Your task to perform on an android device: check the backup settings in the google photos Image 0: 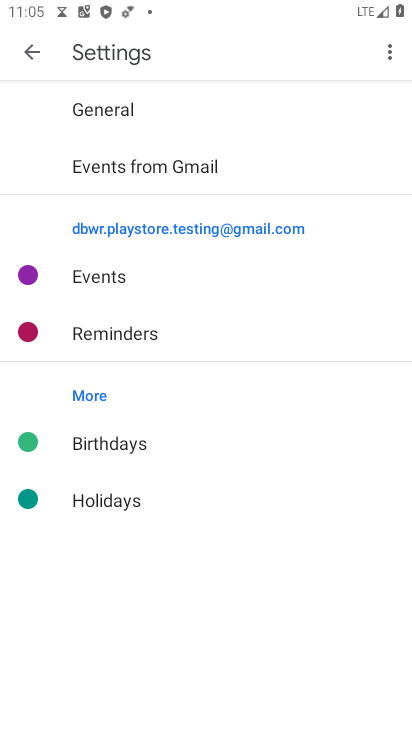
Step 0: press back button
Your task to perform on an android device: check the backup settings in the google photos Image 1: 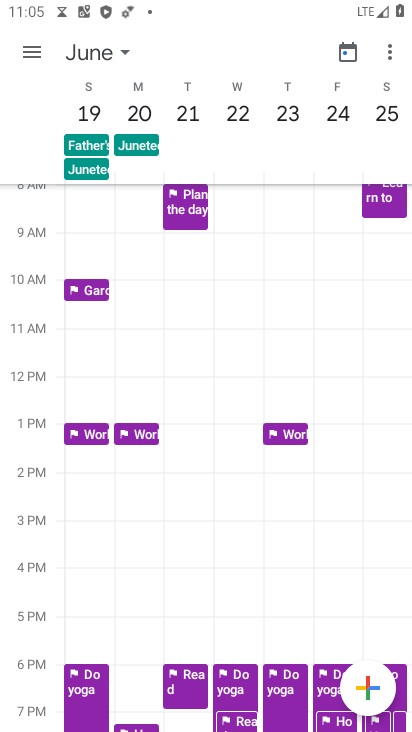
Step 1: press back button
Your task to perform on an android device: check the backup settings in the google photos Image 2: 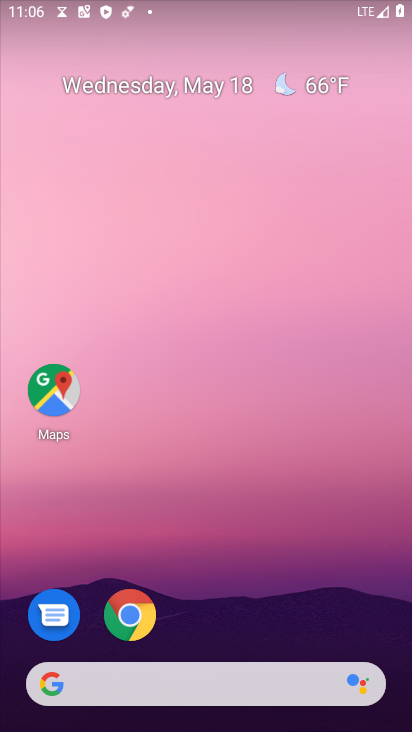
Step 2: drag from (255, 489) to (227, 24)
Your task to perform on an android device: check the backup settings in the google photos Image 3: 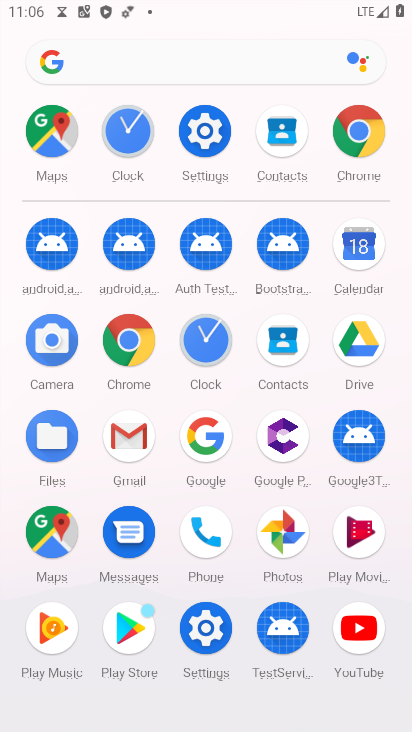
Step 3: click (284, 530)
Your task to perform on an android device: check the backup settings in the google photos Image 4: 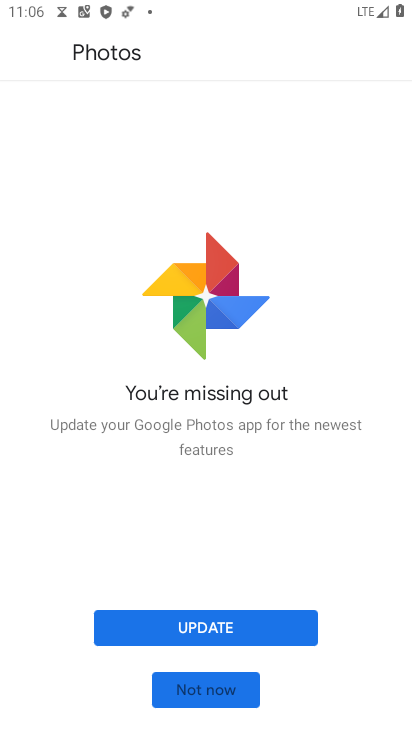
Step 4: click (229, 621)
Your task to perform on an android device: check the backup settings in the google photos Image 5: 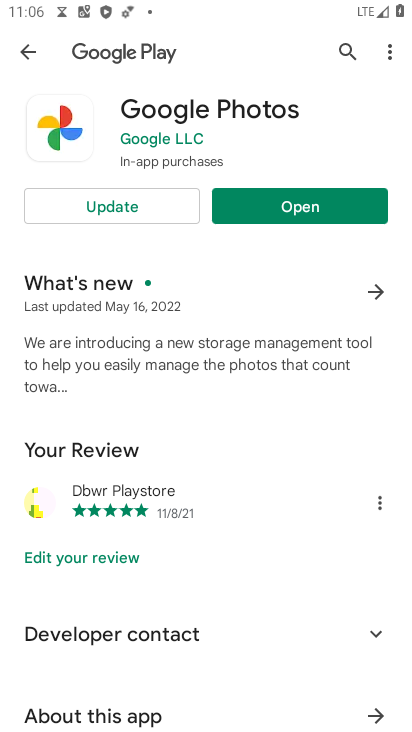
Step 5: click (134, 210)
Your task to perform on an android device: check the backup settings in the google photos Image 6: 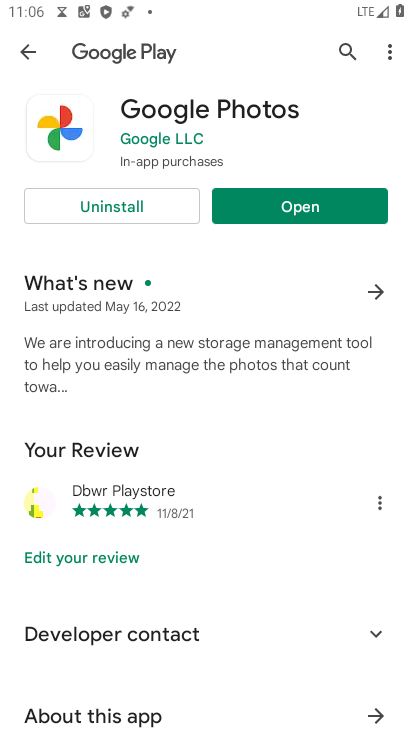
Step 6: click (258, 205)
Your task to perform on an android device: check the backup settings in the google photos Image 7: 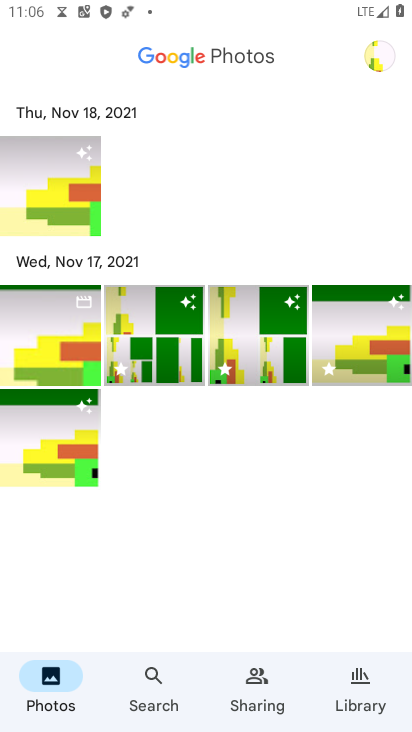
Step 7: task complete